Your task to perform on an android device: Open Google Chrome and click the shortcut for Amazon.com Image 0: 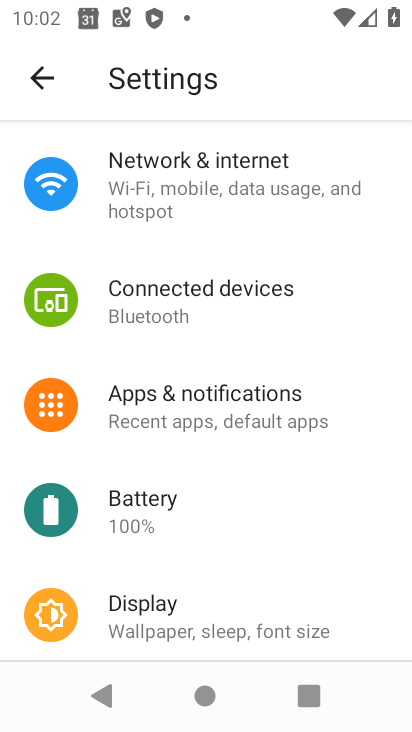
Step 0: press home button
Your task to perform on an android device: Open Google Chrome and click the shortcut for Amazon.com Image 1: 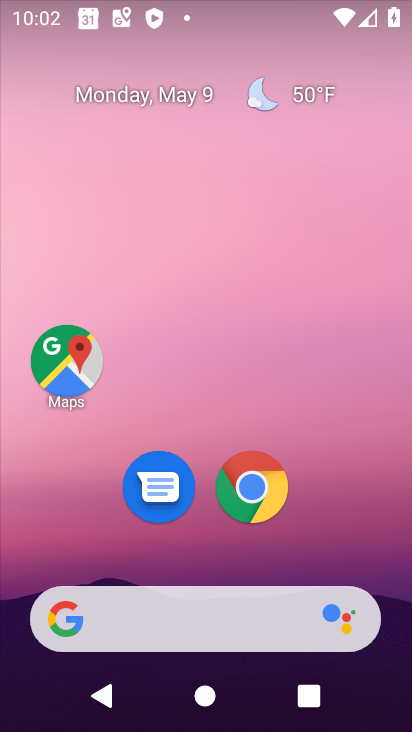
Step 1: click (234, 479)
Your task to perform on an android device: Open Google Chrome and click the shortcut for Amazon.com Image 2: 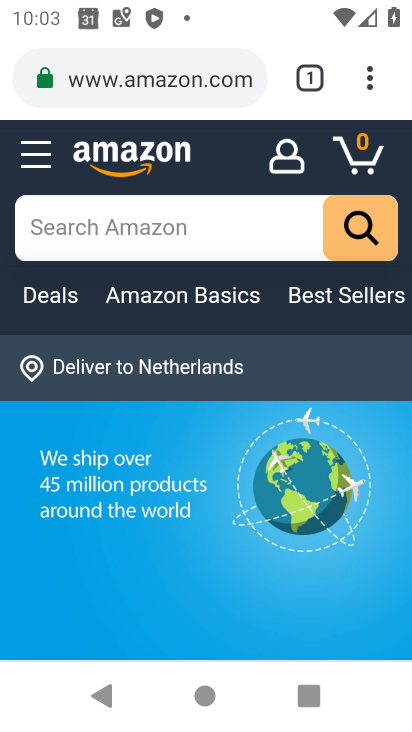
Step 2: press back button
Your task to perform on an android device: Open Google Chrome and click the shortcut for Amazon.com Image 3: 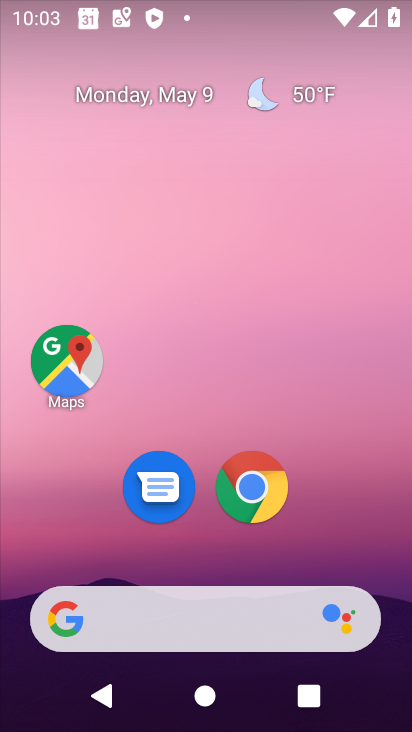
Step 3: click (258, 488)
Your task to perform on an android device: Open Google Chrome and click the shortcut for Amazon.com Image 4: 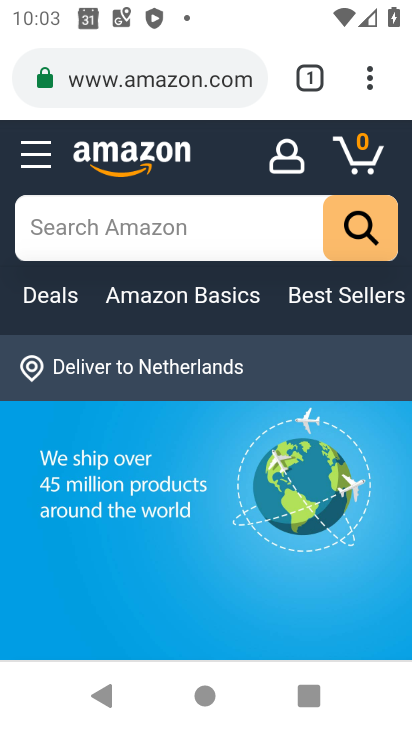
Step 4: task complete